Your task to perform on an android device: Open Reddit.com Image 0: 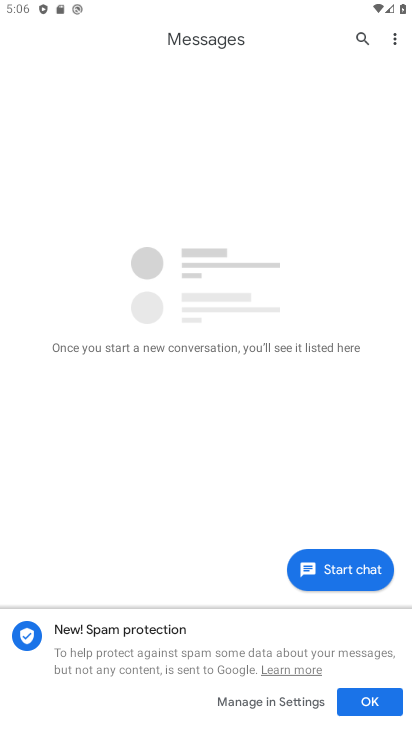
Step 0: press home button
Your task to perform on an android device: Open Reddit.com Image 1: 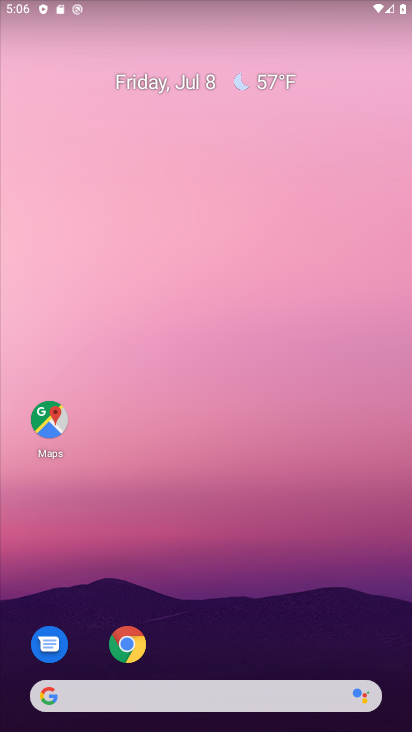
Step 1: click (125, 644)
Your task to perform on an android device: Open Reddit.com Image 2: 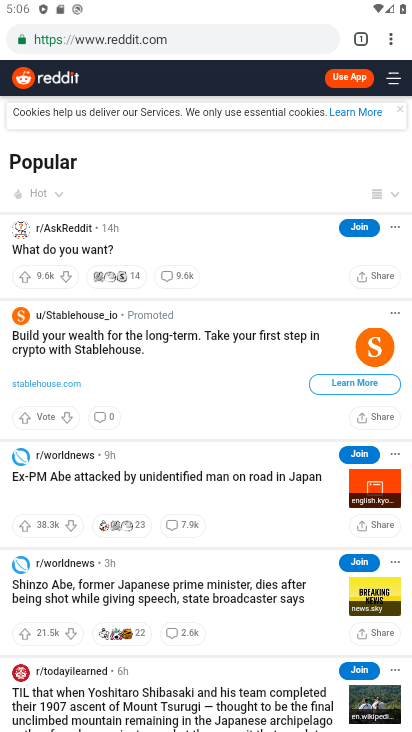
Step 2: task complete